Your task to perform on an android device: delete browsing data in the chrome app Image 0: 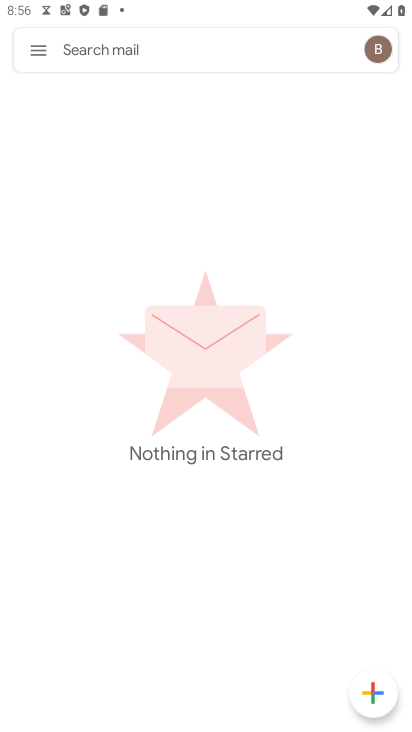
Step 0: press home button
Your task to perform on an android device: delete browsing data in the chrome app Image 1: 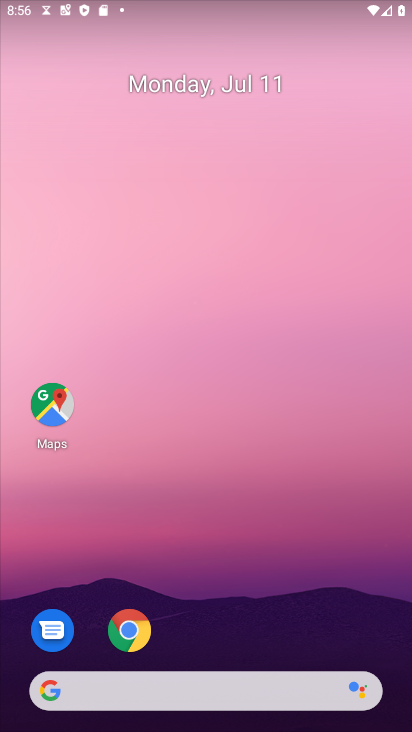
Step 1: click (125, 624)
Your task to perform on an android device: delete browsing data in the chrome app Image 2: 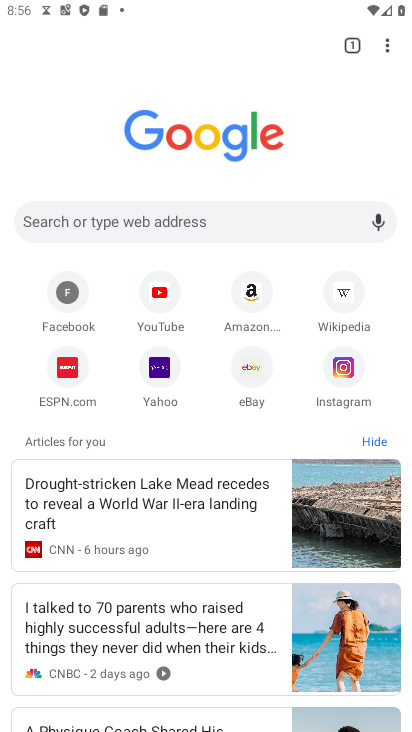
Step 2: click (384, 42)
Your task to perform on an android device: delete browsing data in the chrome app Image 3: 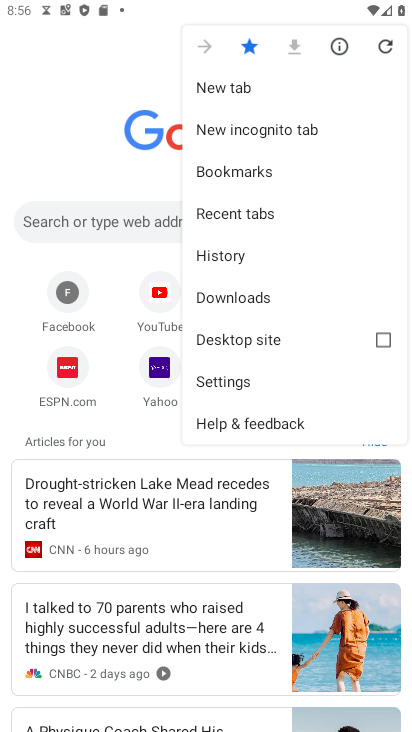
Step 3: click (257, 250)
Your task to perform on an android device: delete browsing data in the chrome app Image 4: 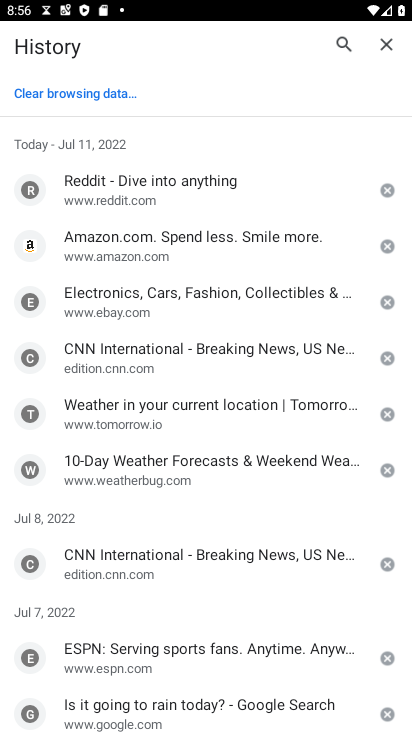
Step 4: click (84, 89)
Your task to perform on an android device: delete browsing data in the chrome app Image 5: 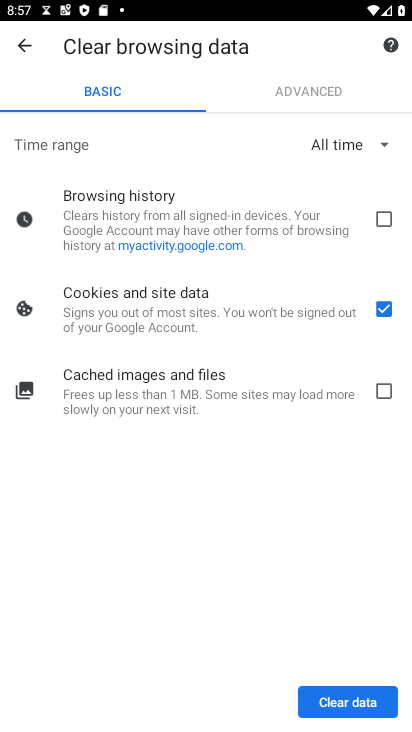
Step 5: click (386, 217)
Your task to perform on an android device: delete browsing data in the chrome app Image 6: 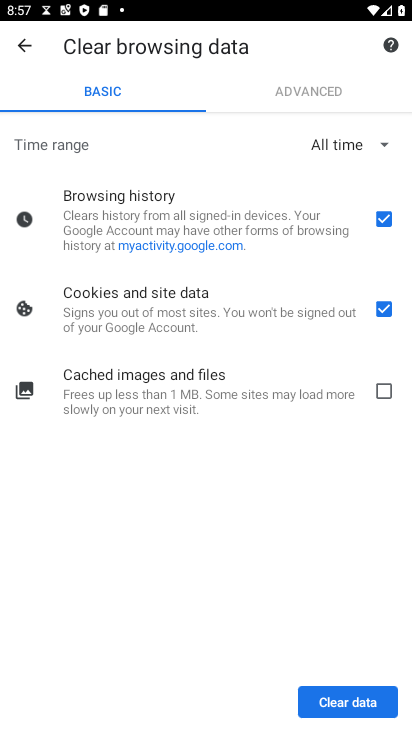
Step 6: click (385, 304)
Your task to perform on an android device: delete browsing data in the chrome app Image 7: 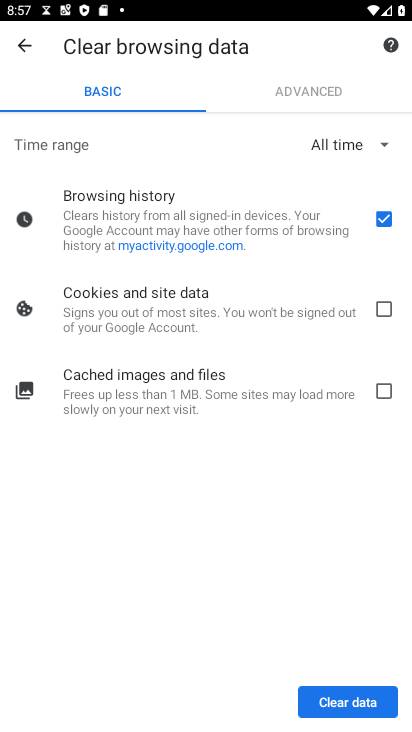
Step 7: click (350, 698)
Your task to perform on an android device: delete browsing data in the chrome app Image 8: 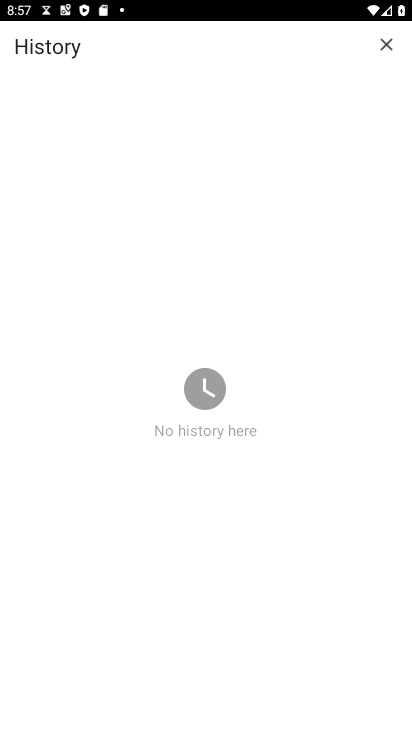
Step 8: task complete